Your task to perform on an android device: turn off smart reply in the gmail app Image 0: 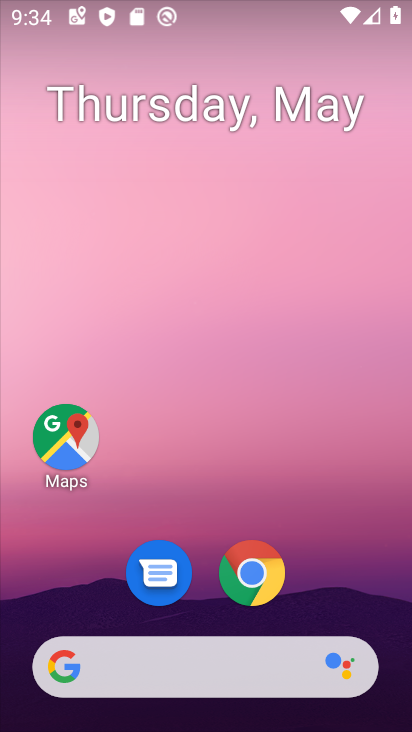
Step 0: drag from (205, 605) to (205, 144)
Your task to perform on an android device: turn off smart reply in the gmail app Image 1: 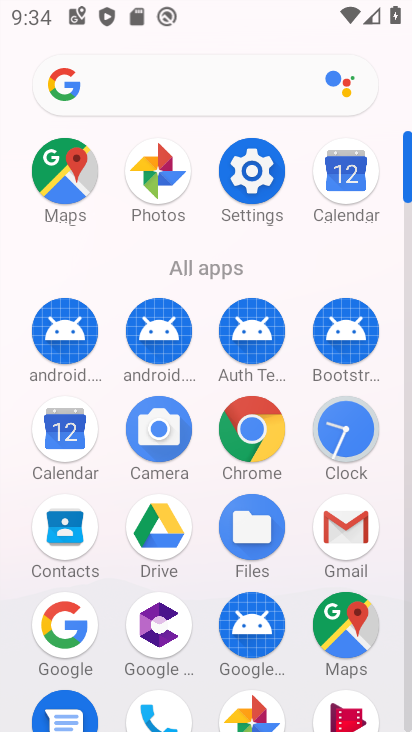
Step 1: click (316, 521)
Your task to perform on an android device: turn off smart reply in the gmail app Image 2: 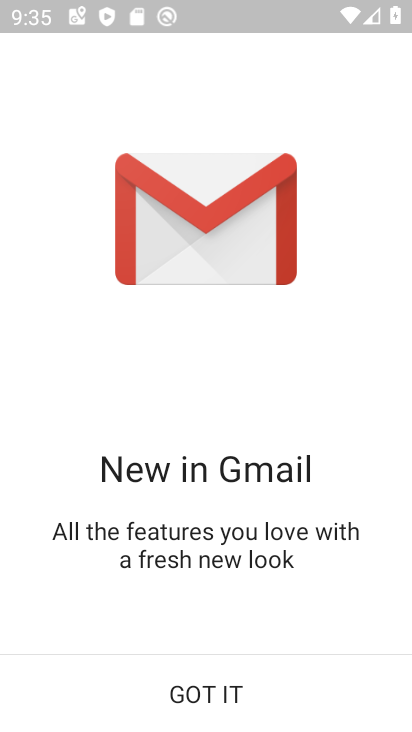
Step 2: click (211, 669)
Your task to perform on an android device: turn off smart reply in the gmail app Image 3: 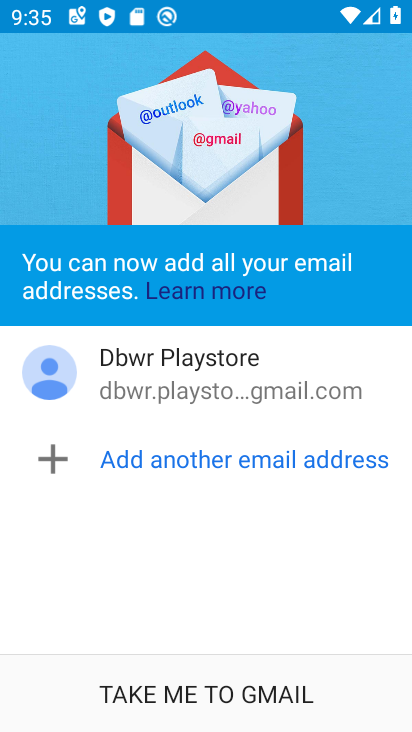
Step 3: press home button
Your task to perform on an android device: turn off smart reply in the gmail app Image 4: 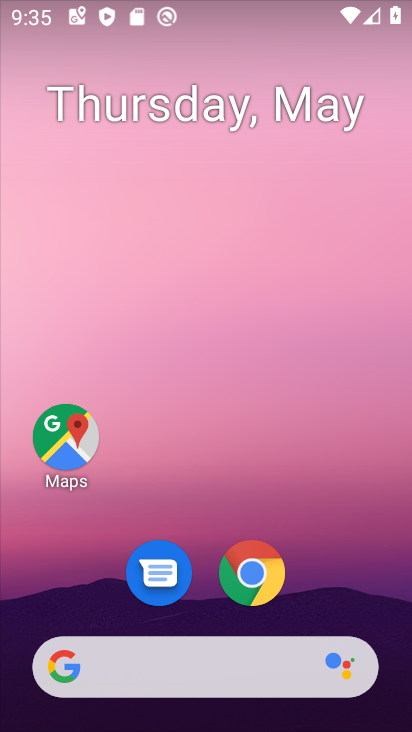
Step 4: drag from (204, 497) to (205, 269)
Your task to perform on an android device: turn off smart reply in the gmail app Image 5: 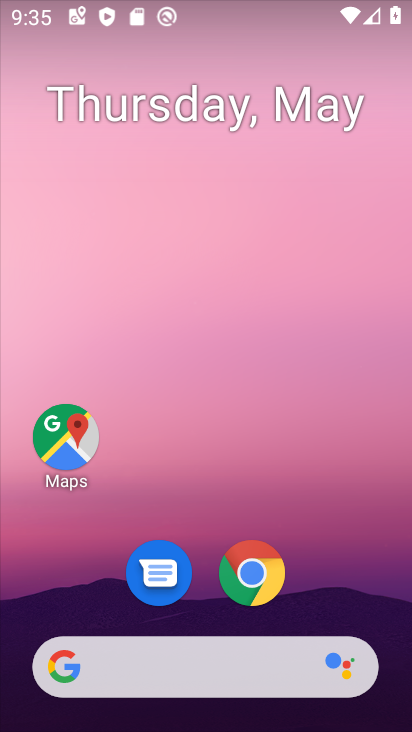
Step 5: drag from (205, 611) to (204, 100)
Your task to perform on an android device: turn off smart reply in the gmail app Image 6: 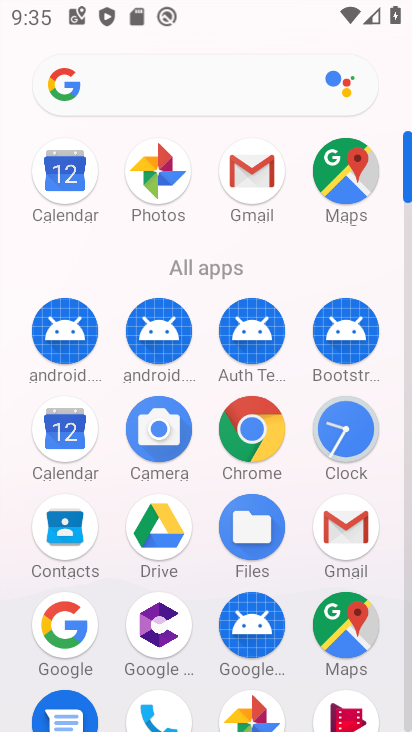
Step 6: click (261, 194)
Your task to perform on an android device: turn off smart reply in the gmail app Image 7: 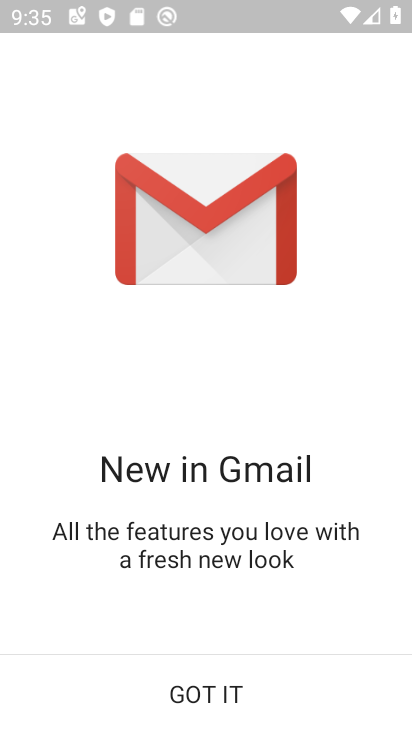
Step 7: click (233, 674)
Your task to perform on an android device: turn off smart reply in the gmail app Image 8: 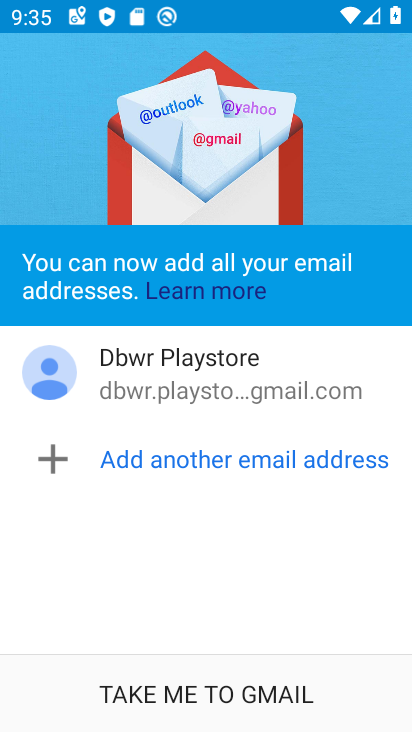
Step 8: click (220, 694)
Your task to perform on an android device: turn off smart reply in the gmail app Image 9: 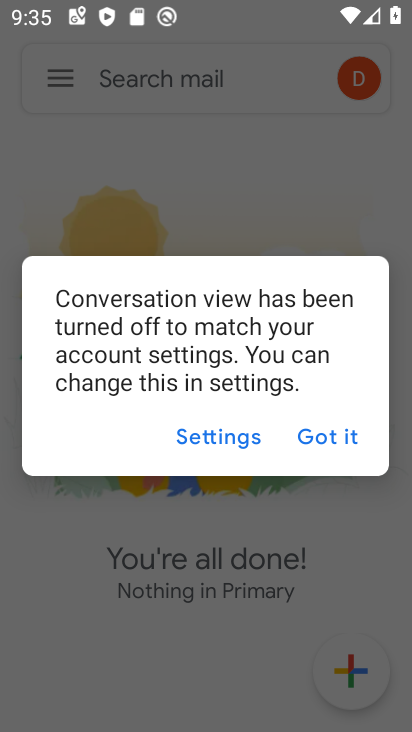
Step 9: click (318, 427)
Your task to perform on an android device: turn off smart reply in the gmail app Image 10: 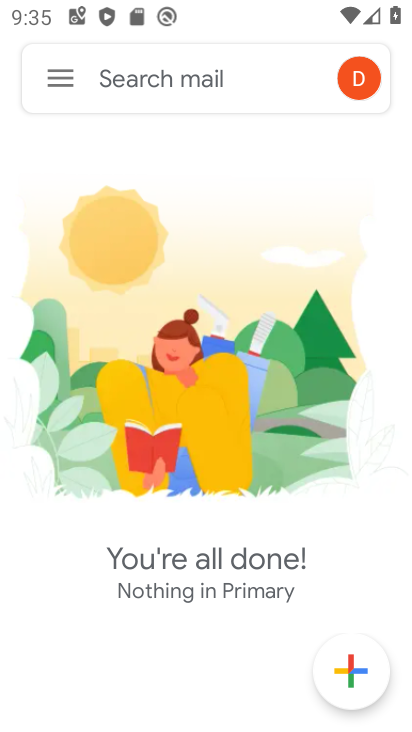
Step 10: click (39, 77)
Your task to perform on an android device: turn off smart reply in the gmail app Image 11: 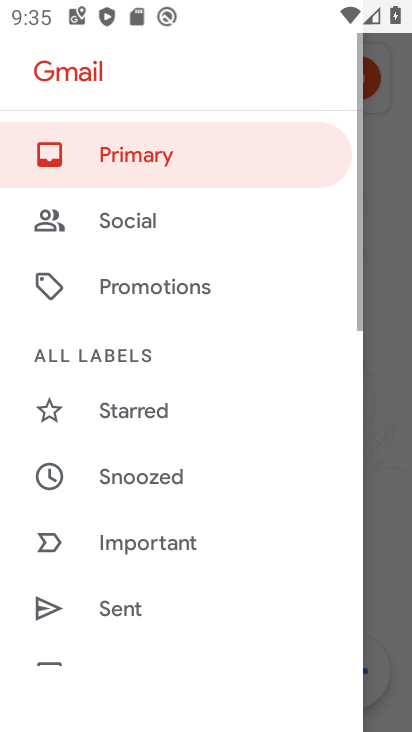
Step 11: drag from (207, 581) to (164, 335)
Your task to perform on an android device: turn off smart reply in the gmail app Image 12: 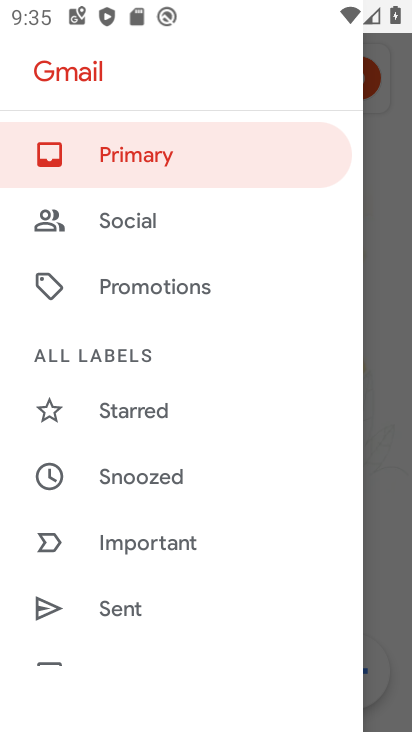
Step 12: drag from (170, 600) to (165, 318)
Your task to perform on an android device: turn off smart reply in the gmail app Image 13: 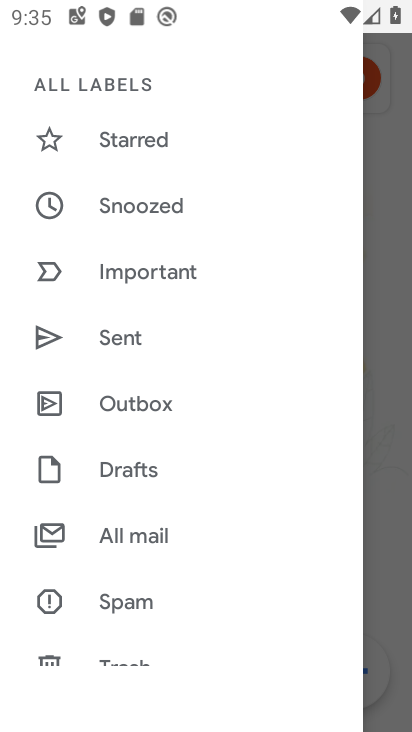
Step 13: drag from (161, 534) to (162, 333)
Your task to perform on an android device: turn off smart reply in the gmail app Image 14: 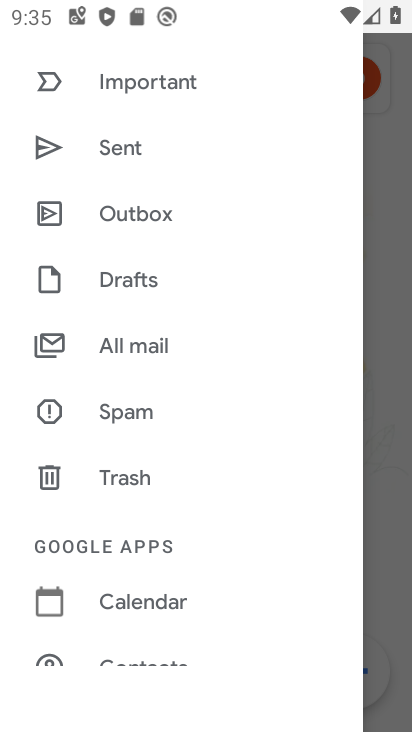
Step 14: drag from (166, 624) to (168, 410)
Your task to perform on an android device: turn off smart reply in the gmail app Image 15: 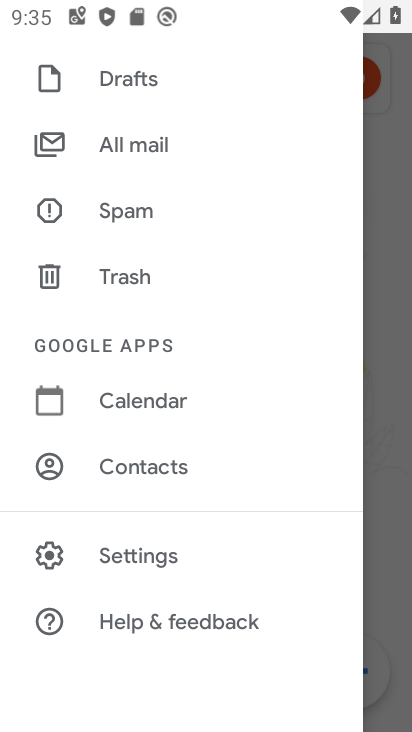
Step 15: click (156, 549)
Your task to perform on an android device: turn off smart reply in the gmail app Image 16: 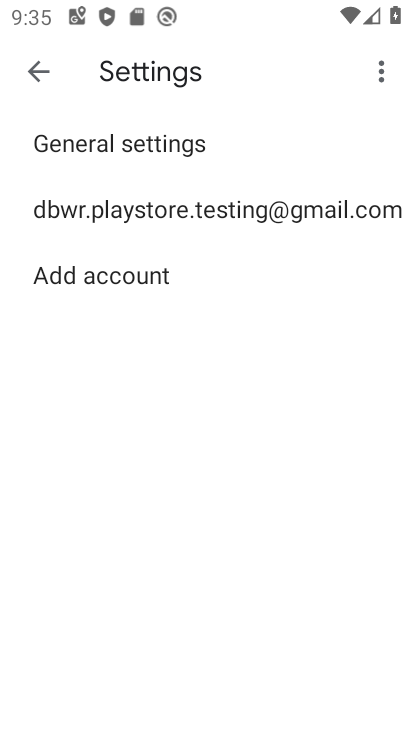
Step 16: click (97, 210)
Your task to perform on an android device: turn off smart reply in the gmail app Image 17: 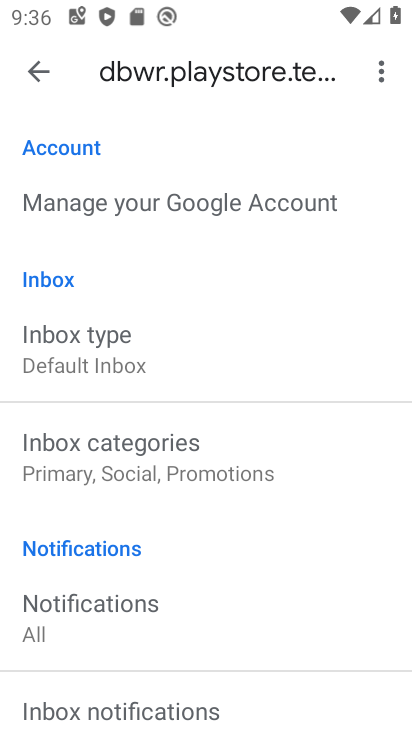
Step 17: drag from (280, 679) to (233, 314)
Your task to perform on an android device: turn off smart reply in the gmail app Image 18: 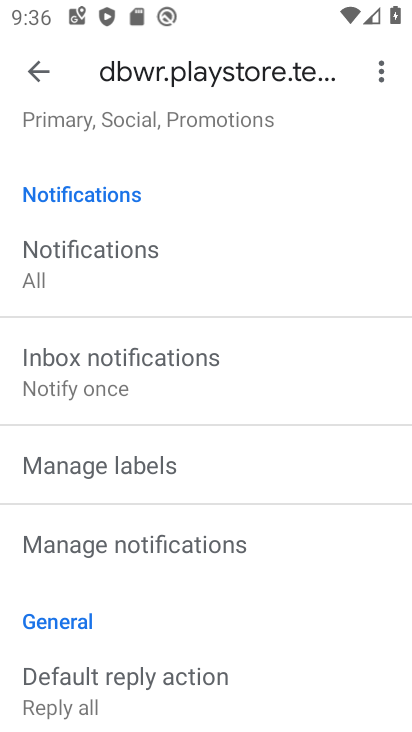
Step 18: drag from (254, 593) to (221, 187)
Your task to perform on an android device: turn off smart reply in the gmail app Image 19: 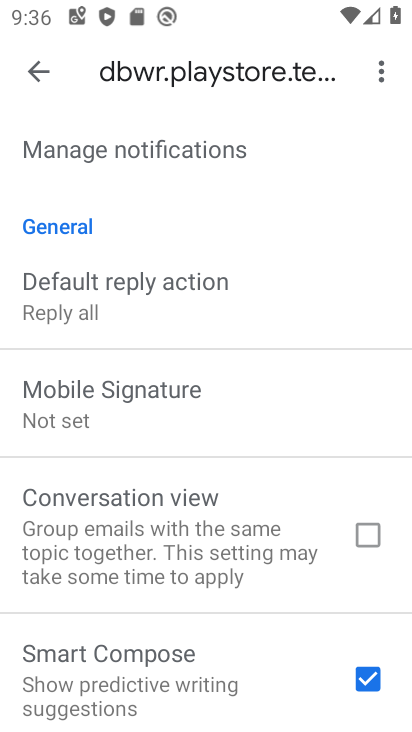
Step 19: drag from (218, 623) to (217, 389)
Your task to perform on an android device: turn off smart reply in the gmail app Image 20: 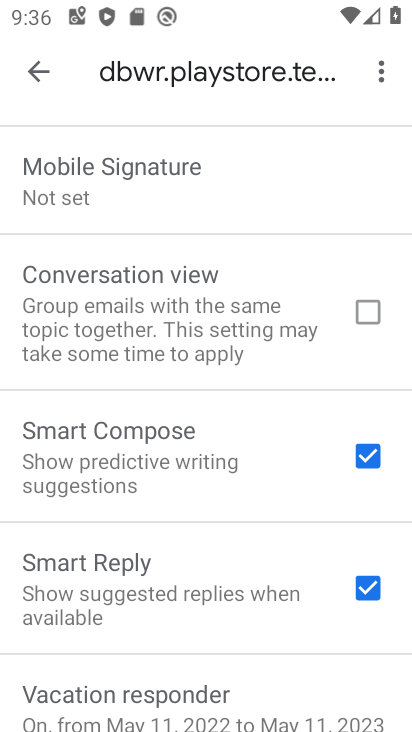
Step 20: drag from (225, 613) to (229, 405)
Your task to perform on an android device: turn off smart reply in the gmail app Image 21: 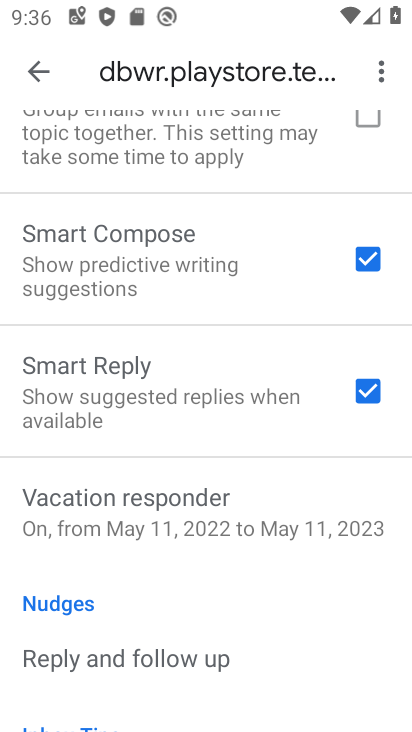
Step 21: drag from (259, 571) to (241, 506)
Your task to perform on an android device: turn off smart reply in the gmail app Image 22: 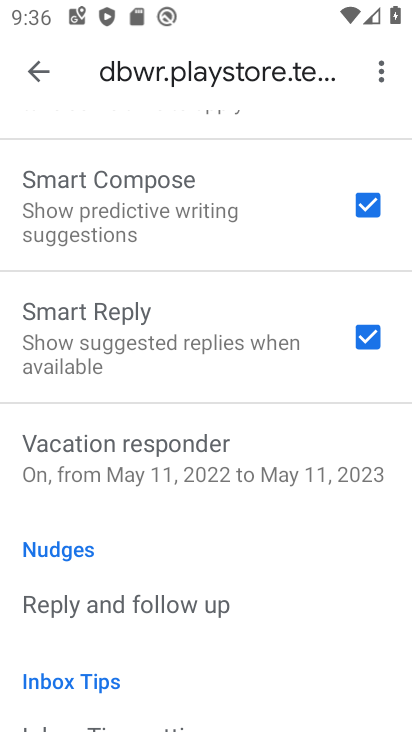
Step 22: click (355, 331)
Your task to perform on an android device: turn off smart reply in the gmail app Image 23: 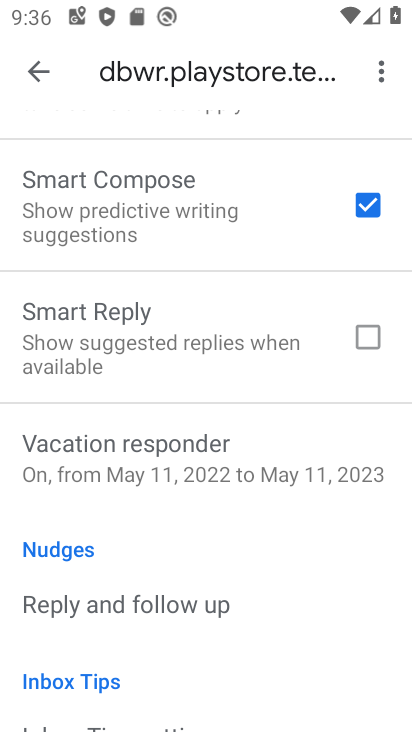
Step 23: task complete